Your task to perform on an android device: all mails in gmail Image 0: 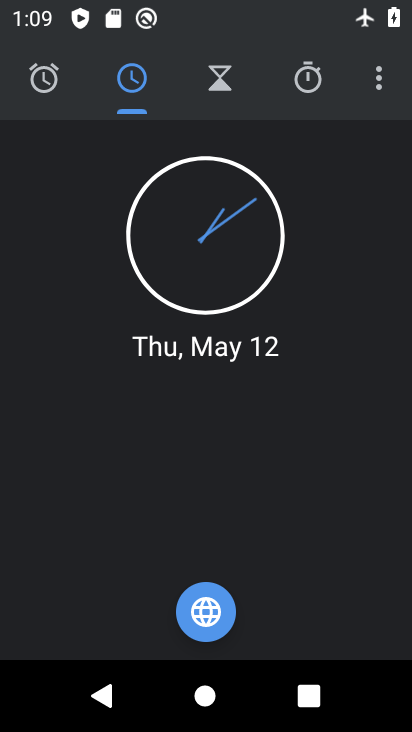
Step 0: press home button
Your task to perform on an android device: all mails in gmail Image 1: 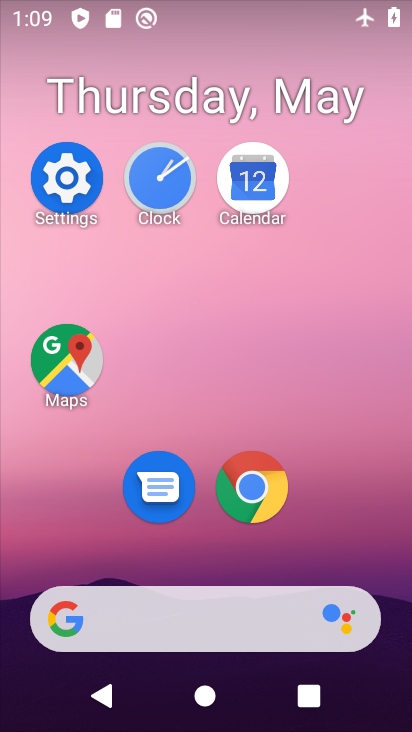
Step 1: drag from (297, 544) to (356, 123)
Your task to perform on an android device: all mails in gmail Image 2: 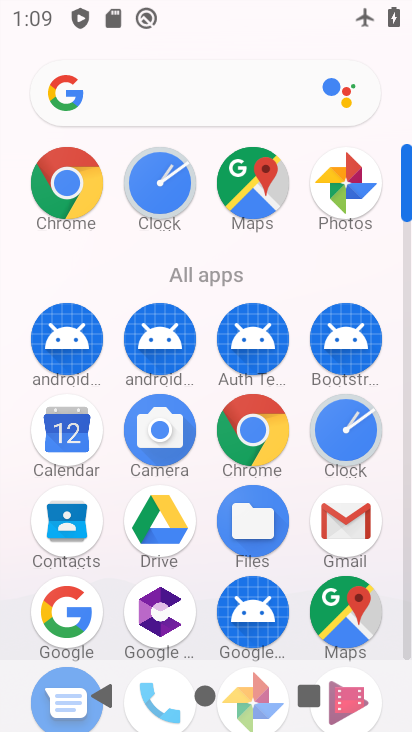
Step 2: drag from (349, 532) to (208, 369)
Your task to perform on an android device: all mails in gmail Image 3: 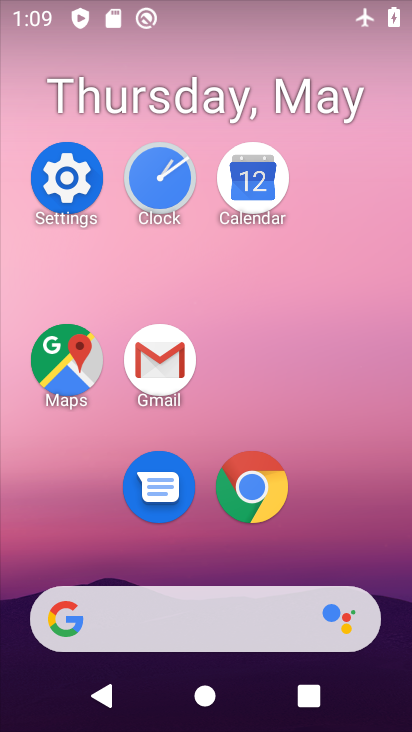
Step 3: click (166, 362)
Your task to perform on an android device: all mails in gmail Image 4: 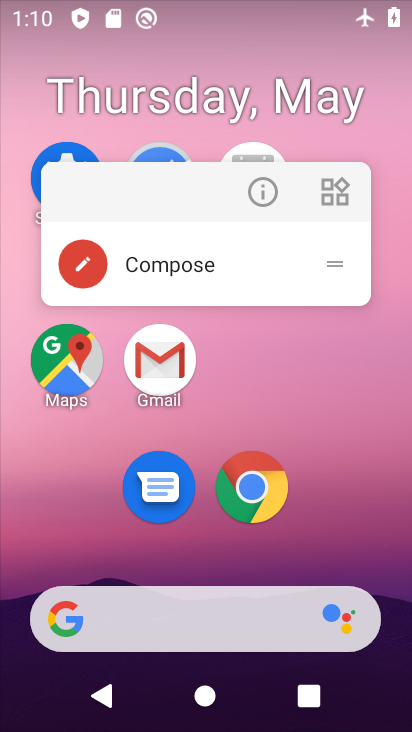
Step 4: click (166, 348)
Your task to perform on an android device: all mails in gmail Image 5: 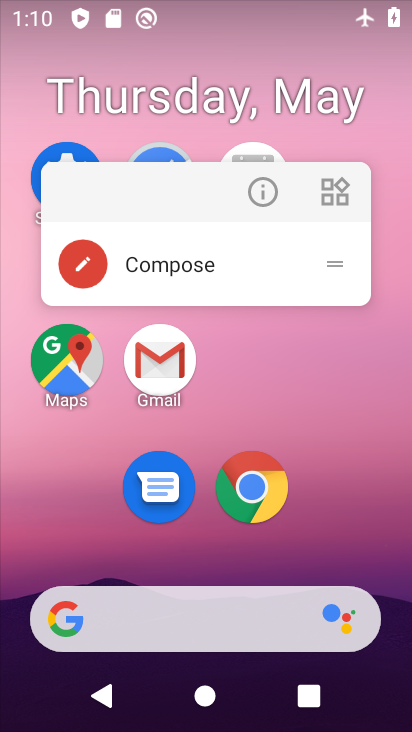
Step 5: click (187, 360)
Your task to perform on an android device: all mails in gmail Image 6: 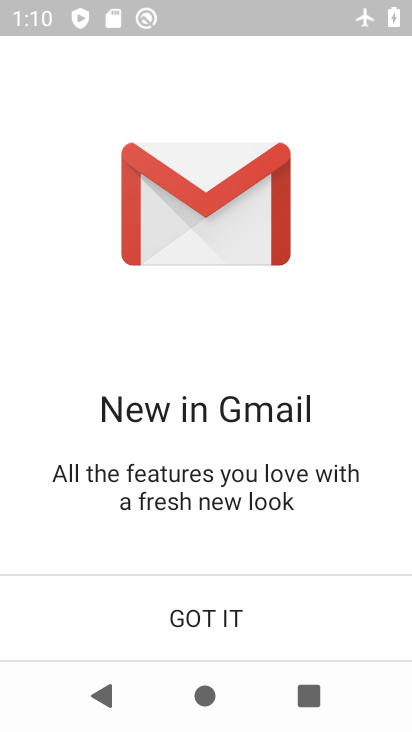
Step 6: click (245, 570)
Your task to perform on an android device: all mails in gmail Image 7: 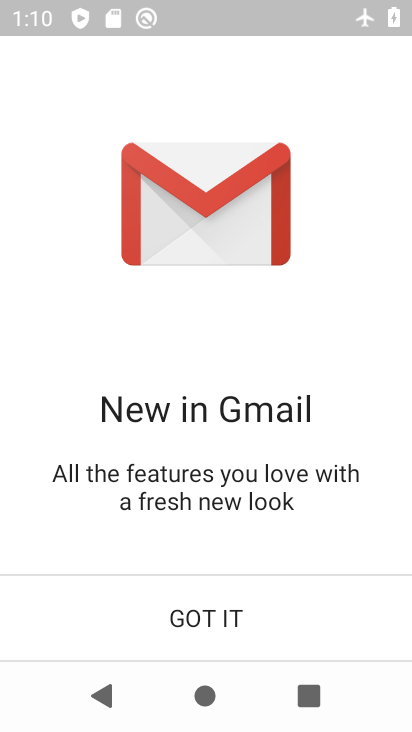
Step 7: click (253, 596)
Your task to perform on an android device: all mails in gmail Image 8: 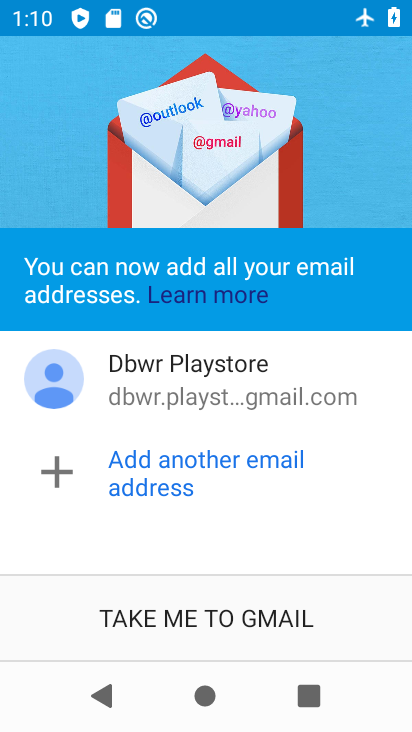
Step 8: click (294, 597)
Your task to perform on an android device: all mails in gmail Image 9: 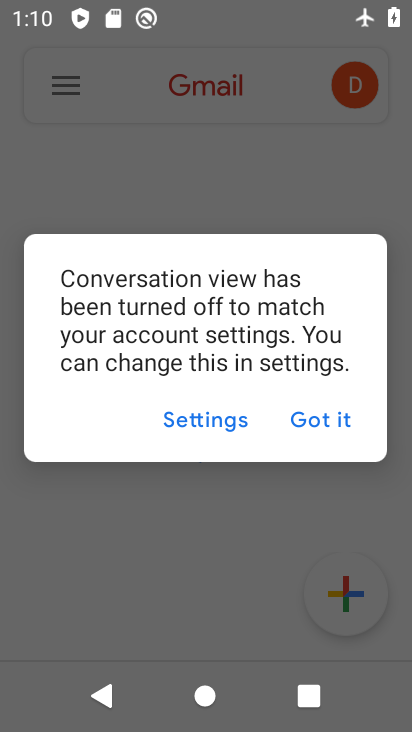
Step 9: click (321, 409)
Your task to perform on an android device: all mails in gmail Image 10: 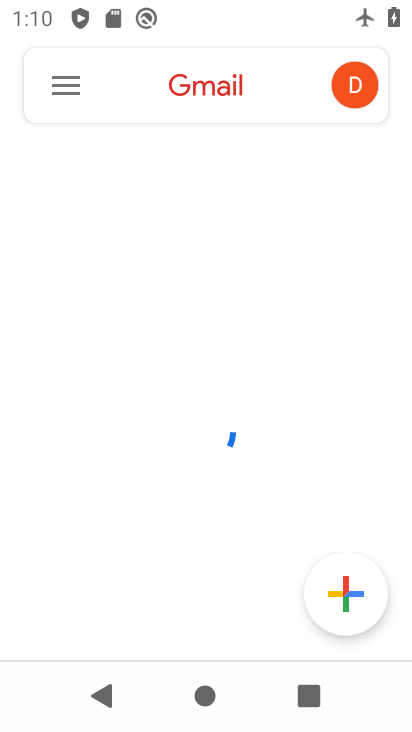
Step 10: click (61, 73)
Your task to perform on an android device: all mails in gmail Image 11: 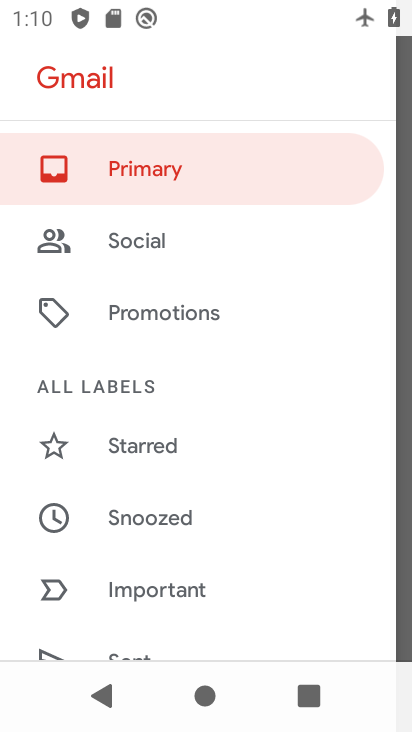
Step 11: drag from (223, 552) to (255, 153)
Your task to perform on an android device: all mails in gmail Image 12: 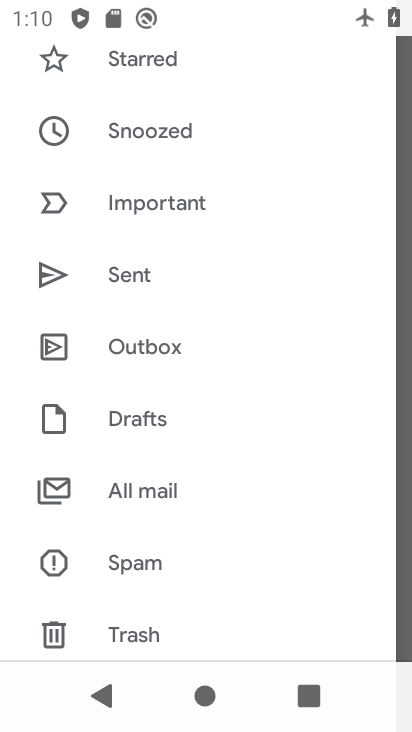
Step 12: click (201, 489)
Your task to perform on an android device: all mails in gmail Image 13: 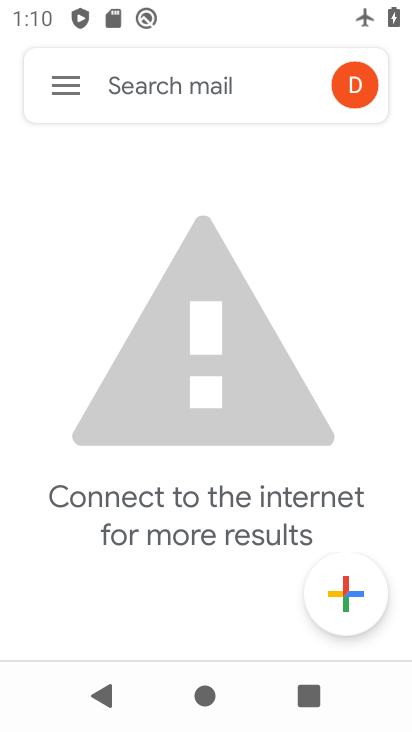
Step 13: task complete